Your task to perform on an android device: Open the Play Movies app and select the watchlist tab. Image 0: 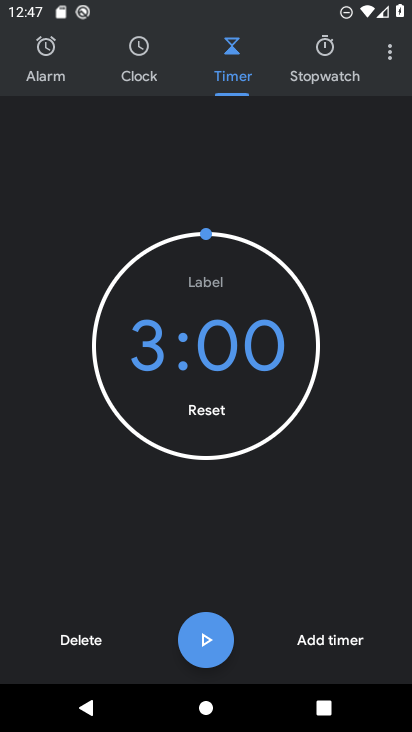
Step 0: press home button
Your task to perform on an android device: Open the Play Movies app and select the watchlist tab. Image 1: 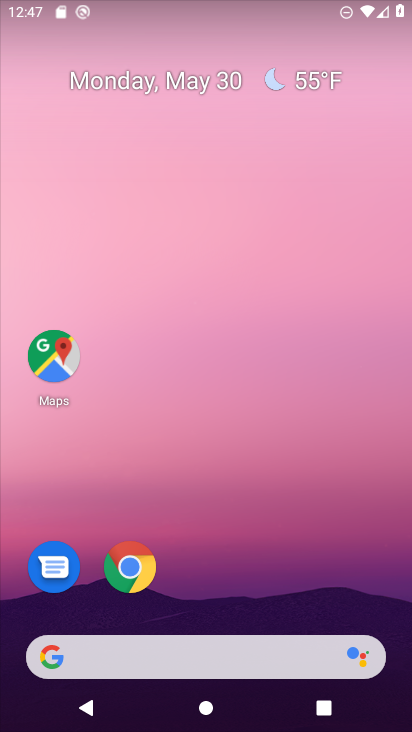
Step 1: drag from (245, 615) to (256, 164)
Your task to perform on an android device: Open the Play Movies app and select the watchlist tab. Image 2: 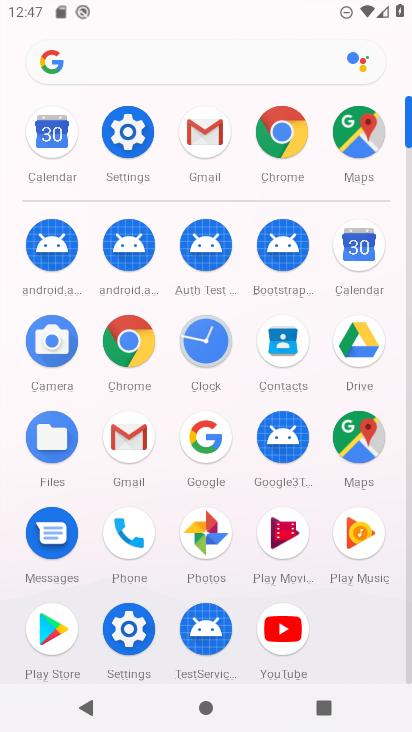
Step 2: click (284, 529)
Your task to perform on an android device: Open the Play Movies app and select the watchlist tab. Image 3: 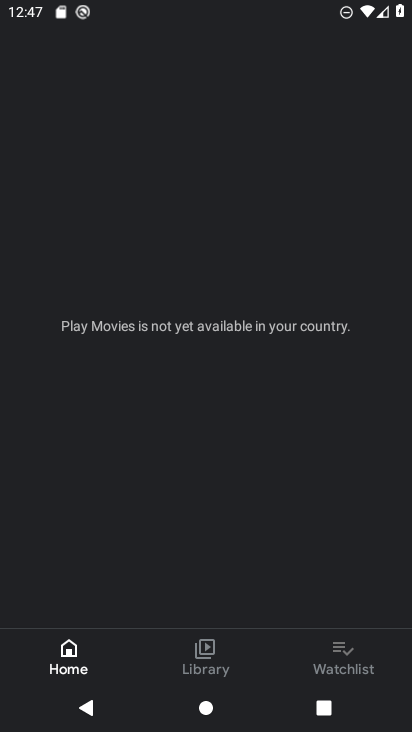
Step 3: click (345, 649)
Your task to perform on an android device: Open the Play Movies app and select the watchlist tab. Image 4: 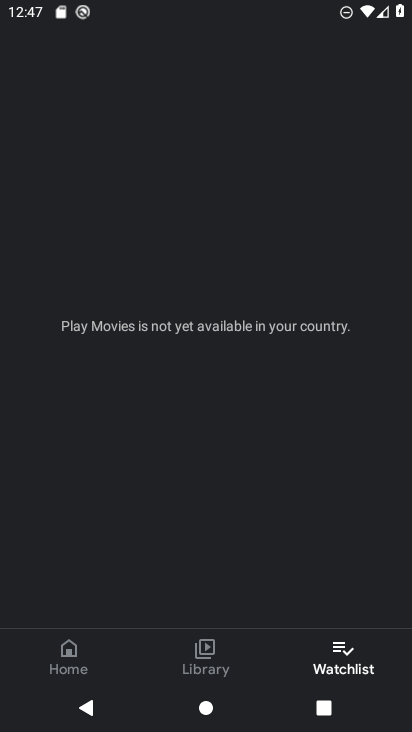
Step 4: task complete